Your task to perform on an android device: Do I have any events tomorrow? Image 0: 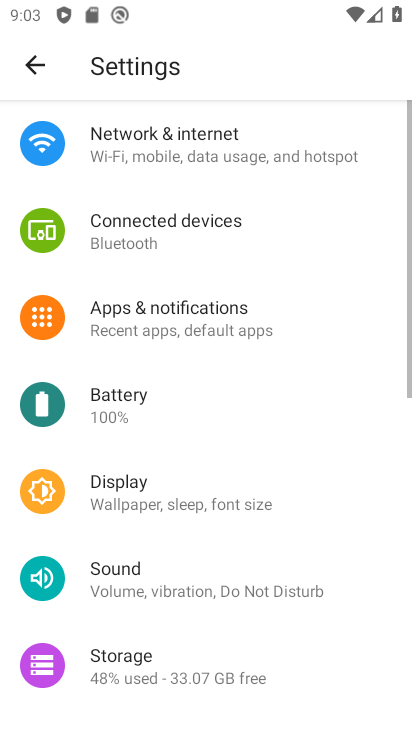
Step 0: press home button
Your task to perform on an android device: Do I have any events tomorrow? Image 1: 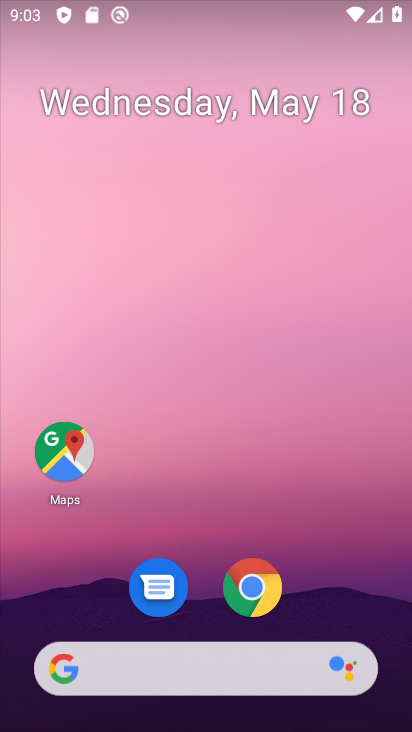
Step 1: drag from (363, 504) to (363, 137)
Your task to perform on an android device: Do I have any events tomorrow? Image 2: 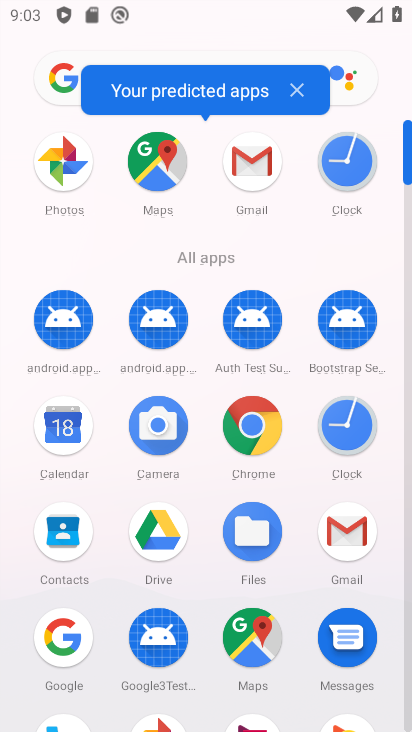
Step 2: drag from (295, 609) to (311, 261)
Your task to perform on an android device: Do I have any events tomorrow? Image 3: 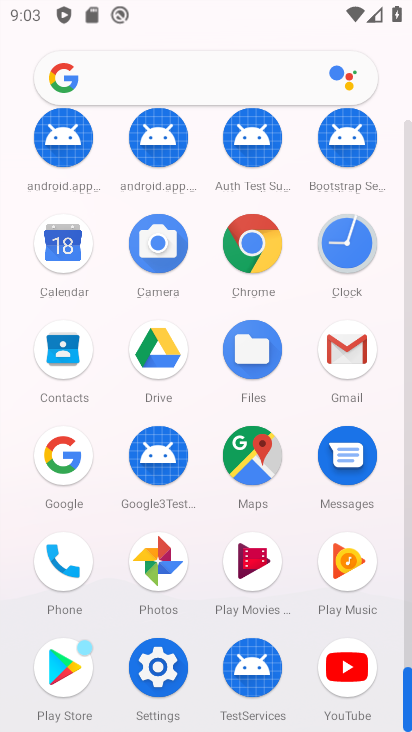
Step 3: click (41, 253)
Your task to perform on an android device: Do I have any events tomorrow? Image 4: 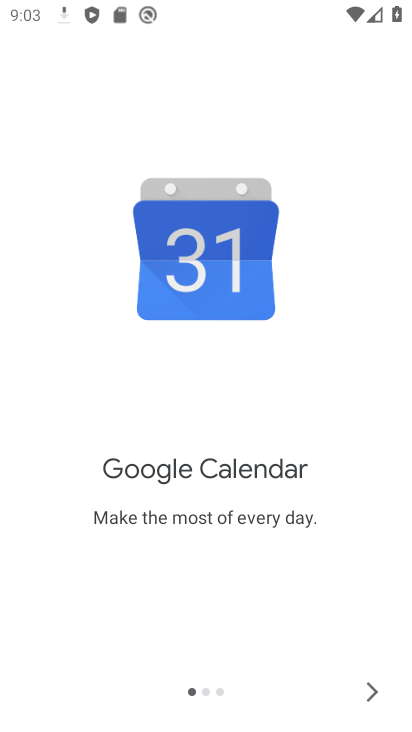
Step 4: click (366, 691)
Your task to perform on an android device: Do I have any events tomorrow? Image 5: 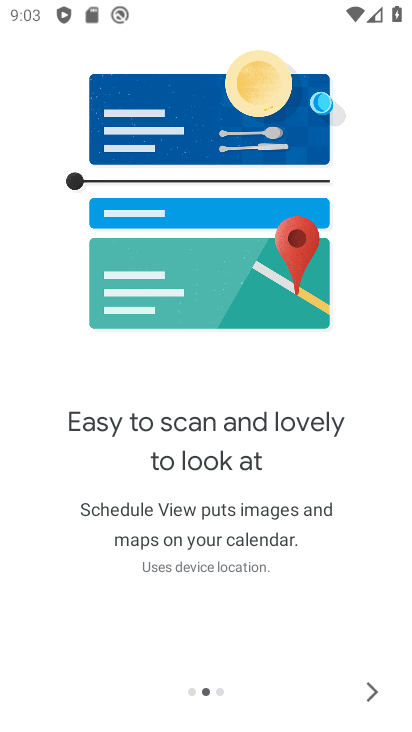
Step 5: click (366, 680)
Your task to perform on an android device: Do I have any events tomorrow? Image 6: 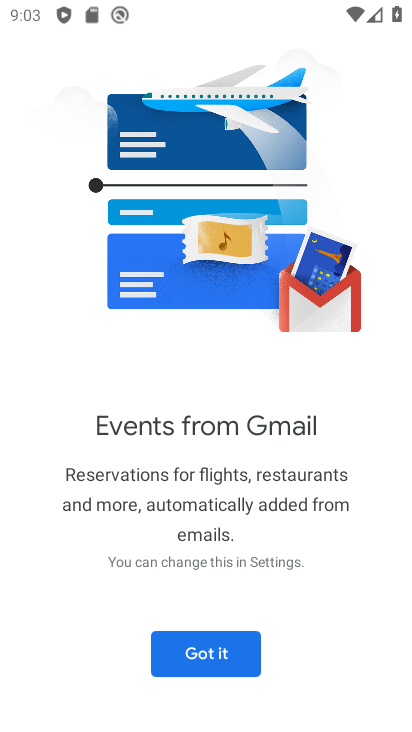
Step 6: click (230, 658)
Your task to perform on an android device: Do I have any events tomorrow? Image 7: 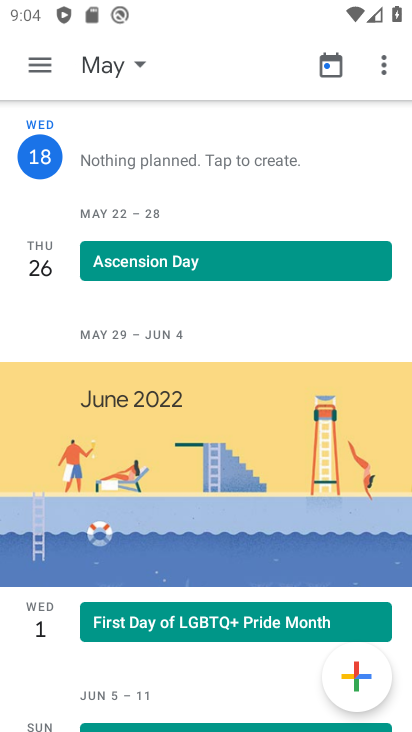
Step 7: click (101, 67)
Your task to perform on an android device: Do I have any events tomorrow? Image 8: 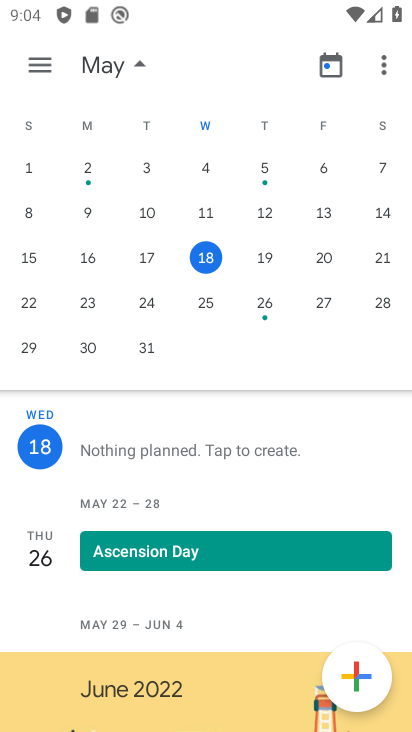
Step 8: click (267, 258)
Your task to perform on an android device: Do I have any events tomorrow? Image 9: 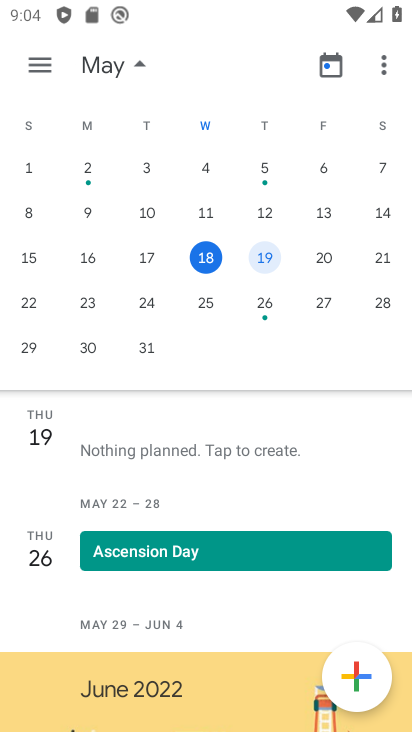
Step 9: task complete